Your task to perform on an android device: delete a single message in the gmail app Image 0: 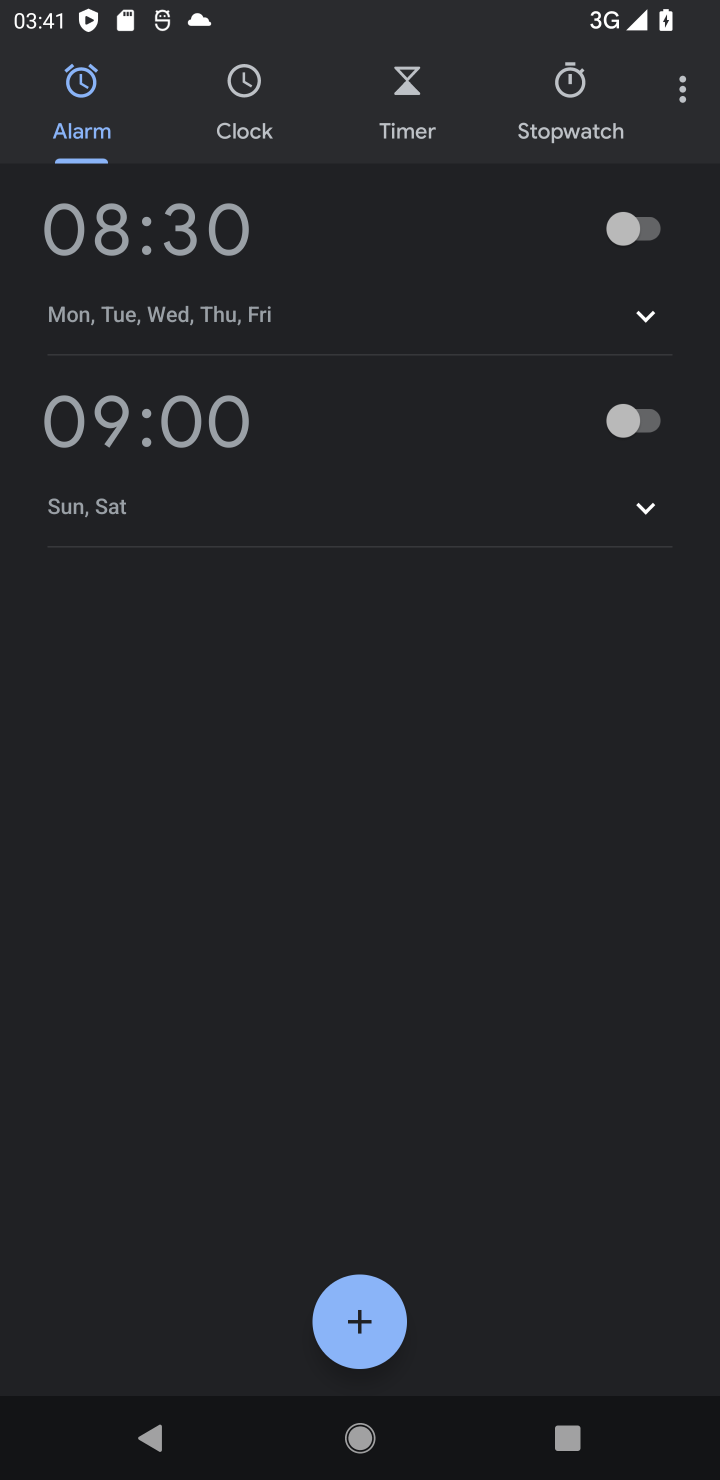
Step 0: press home button
Your task to perform on an android device: delete a single message in the gmail app Image 1: 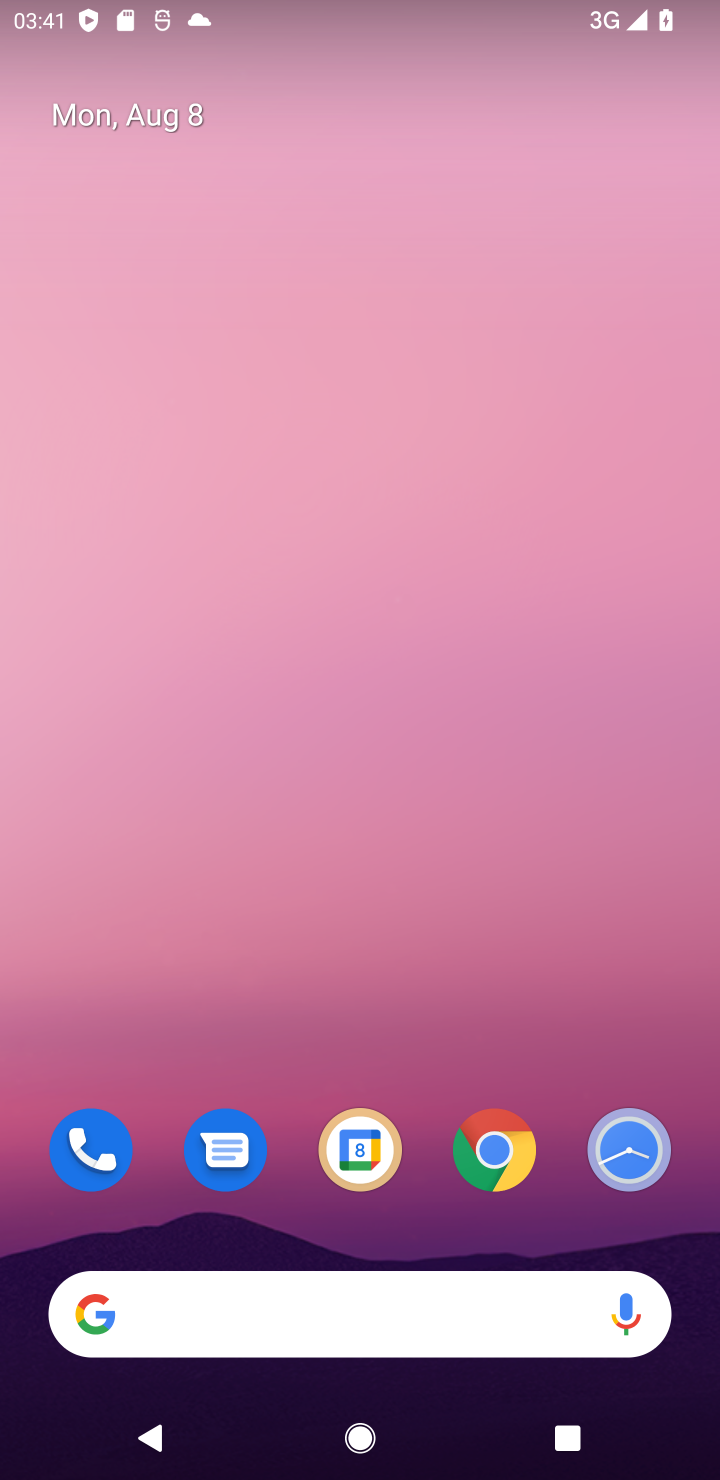
Step 1: drag from (53, 1455) to (430, 698)
Your task to perform on an android device: delete a single message in the gmail app Image 2: 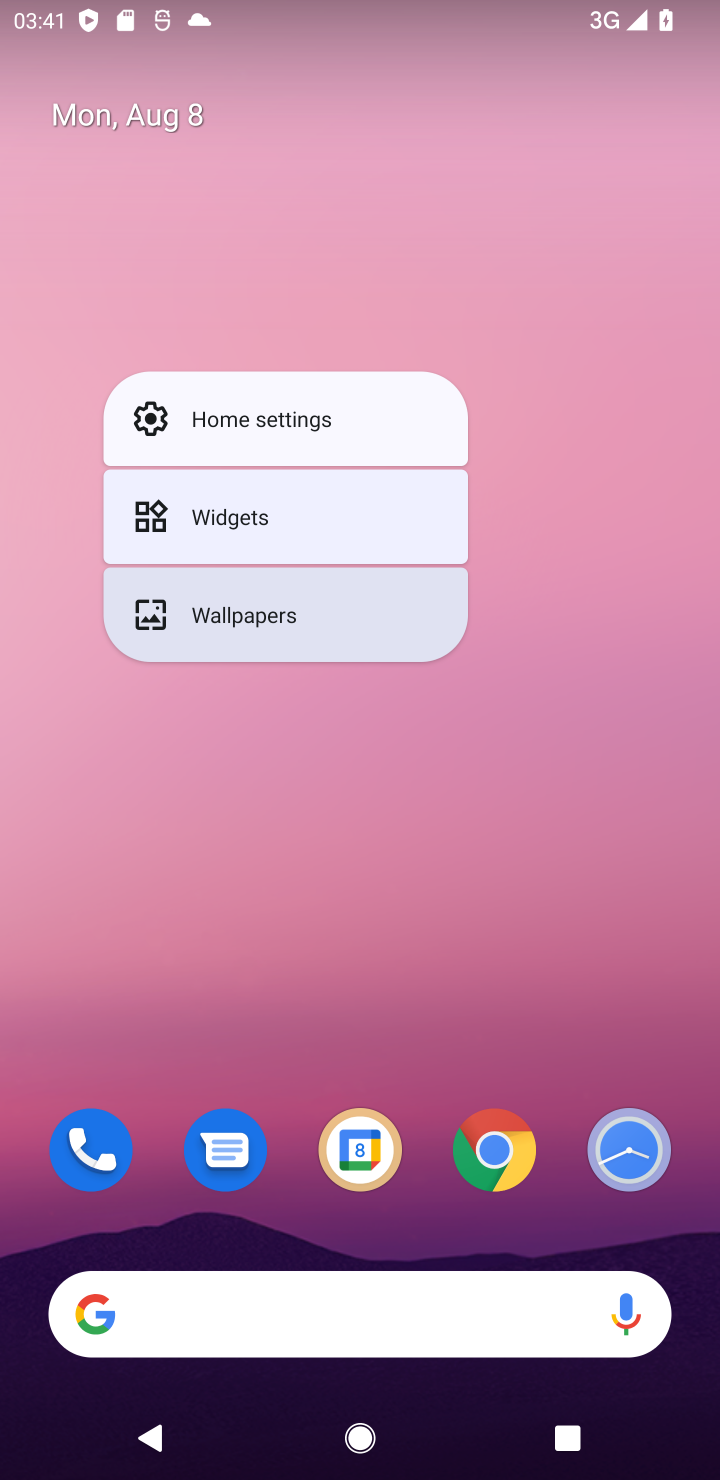
Step 2: drag from (37, 1421) to (227, 426)
Your task to perform on an android device: delete a single message in the gmail app Image 3: 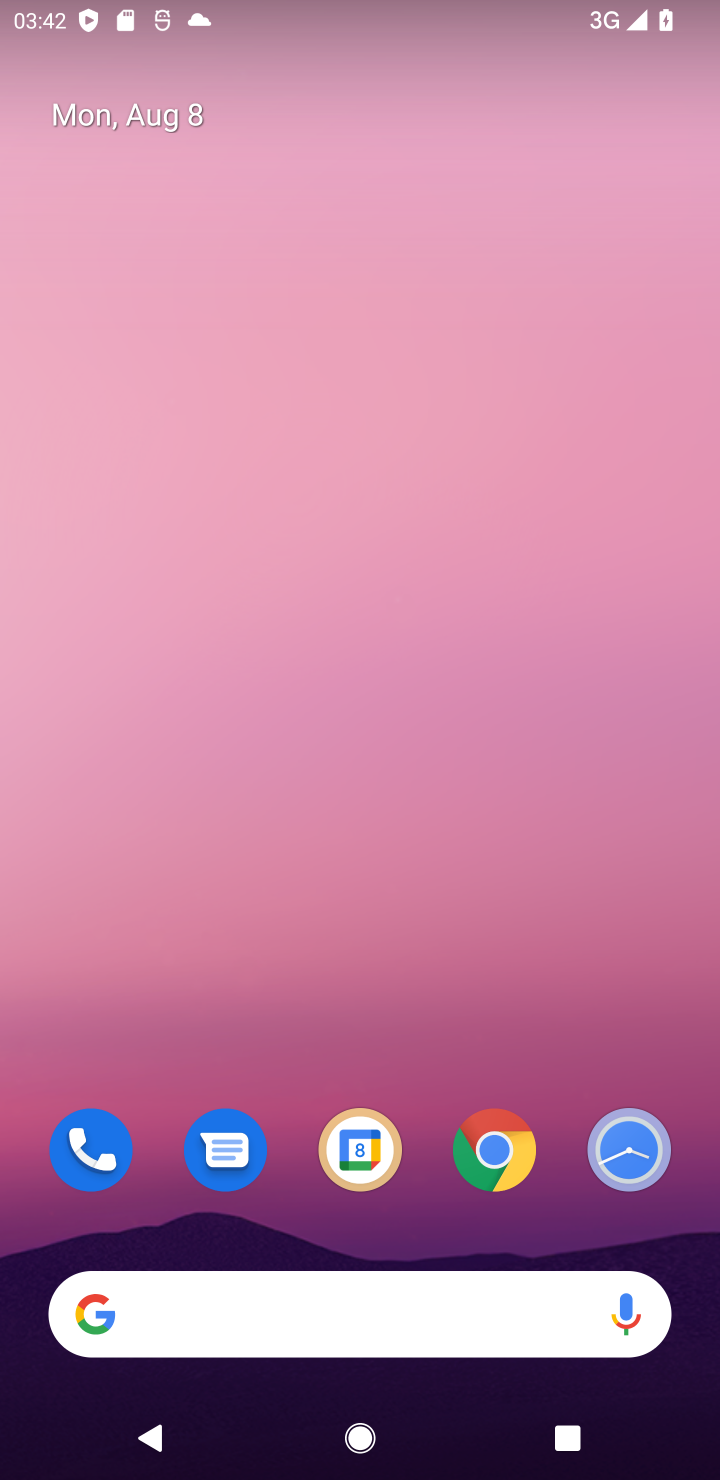
Step 3: drag from (102, 1389) to (459, 578)
Your task to perform on an android device: delete a single message in the gmail app Image 4: 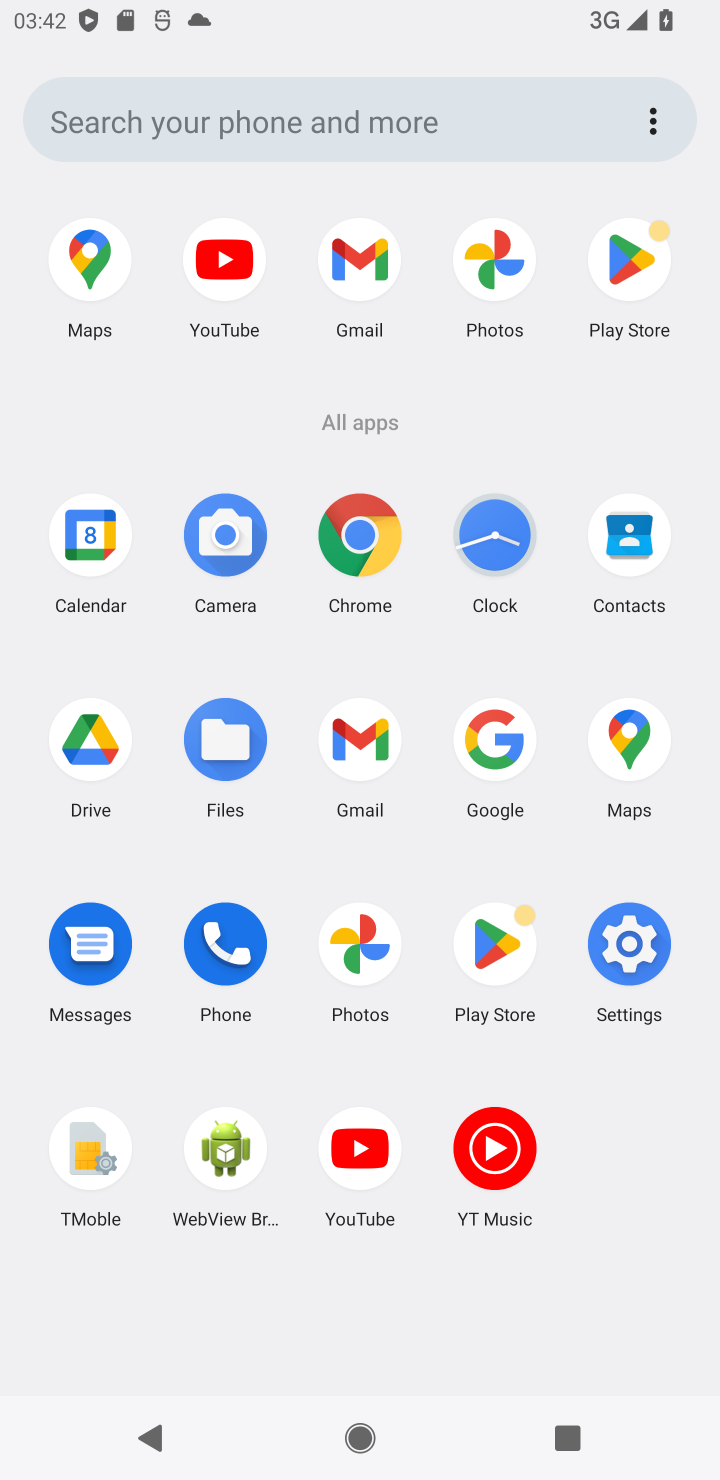
Step 4: click (366, 764)
Your task to perform on an android device: delete a single message in the gmail app Image 5: 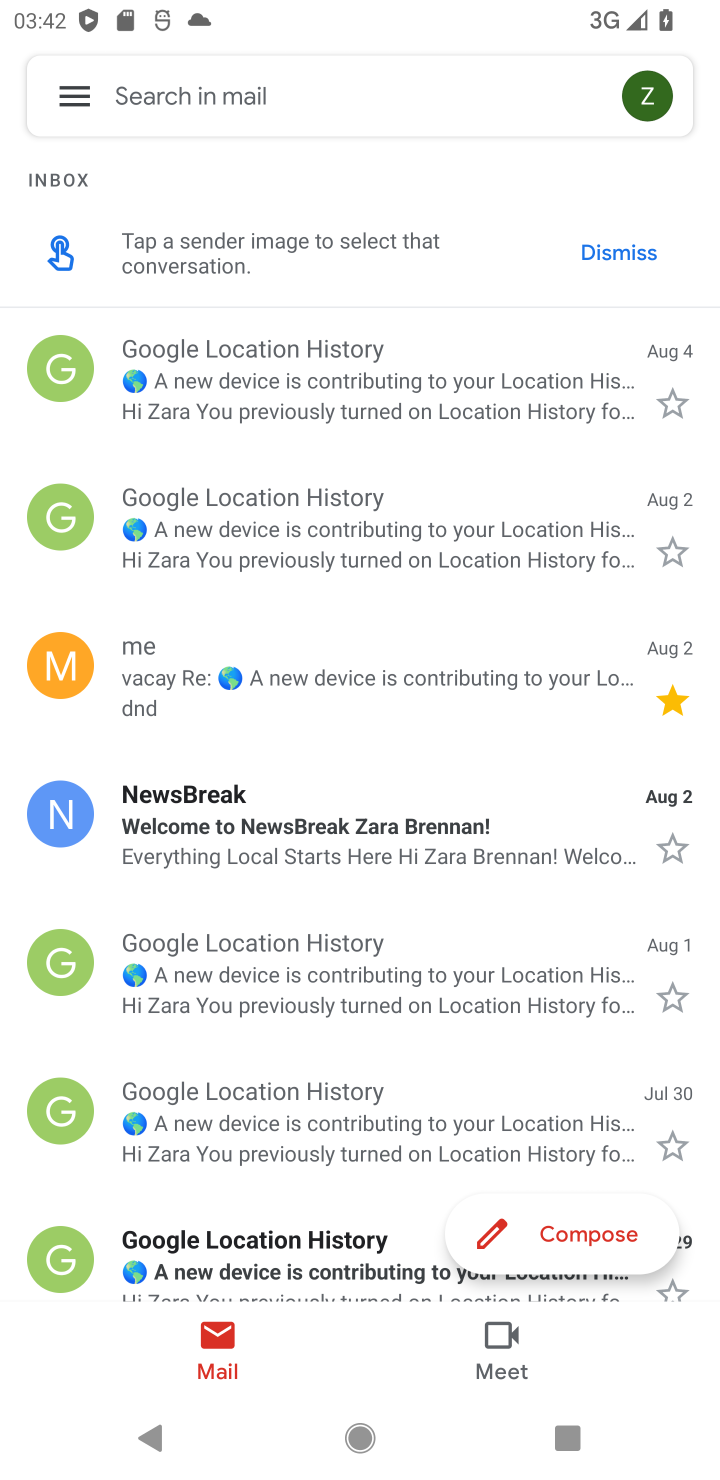
Step 5: click (320, 377)
Your task to perform on an android device: delete a single message in the gmail app Image 6: 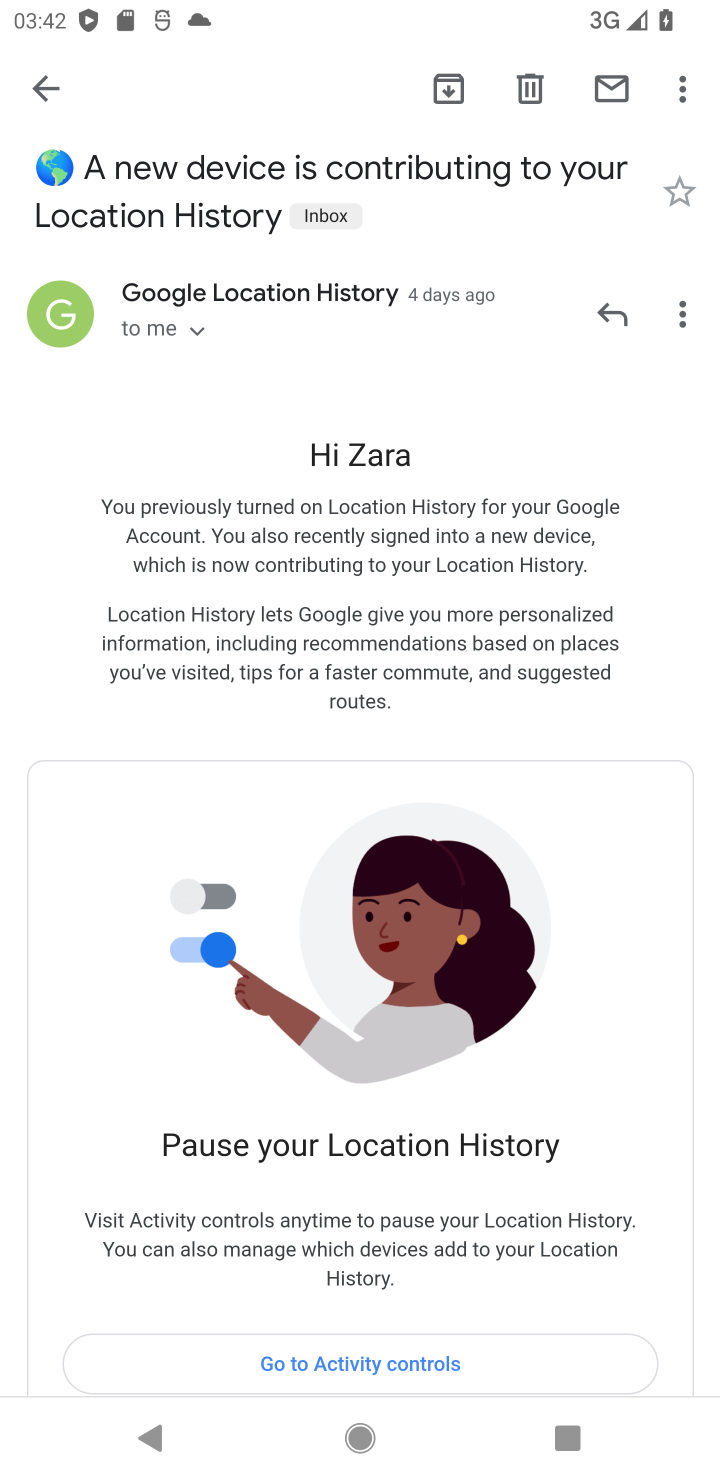
Step 6: click (517, 80)
Your task to perform on an android device: delete a single message in the gmail app Image 7: 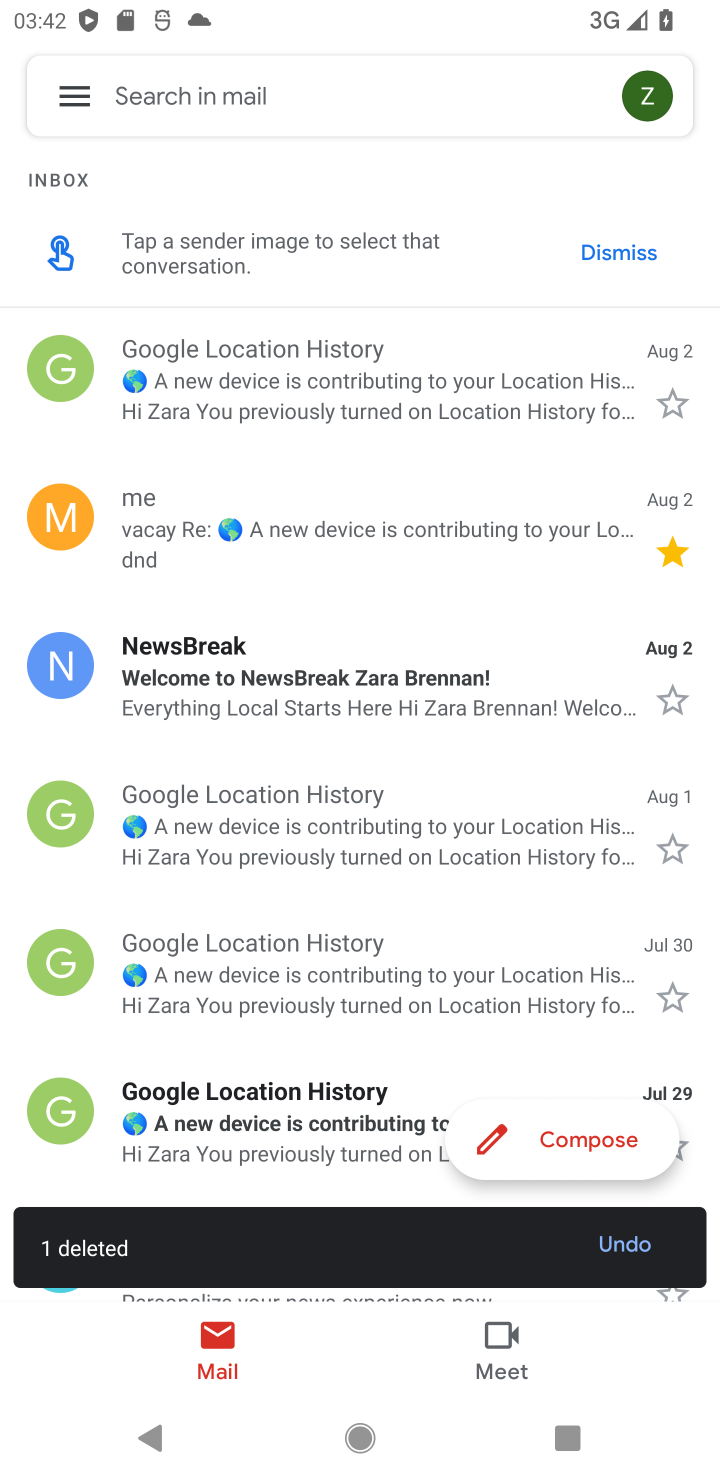
Step 7: task complete